Your task to perform on an android device: Is it going to rain today? Image 0: 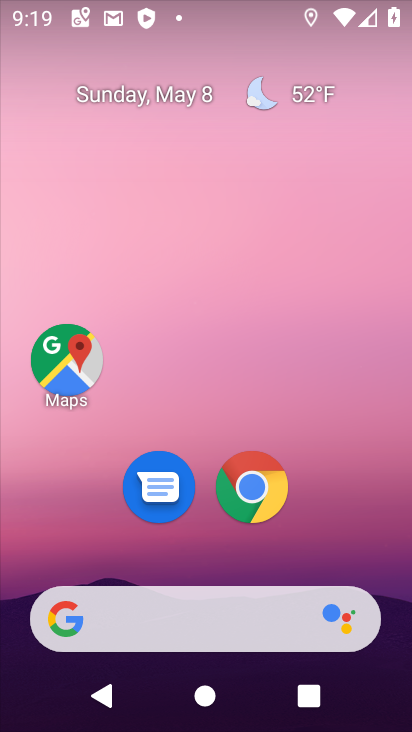
Step 0: click (245, 610)
Your task to perform on an android device: Is it going to rain today? Image 1: 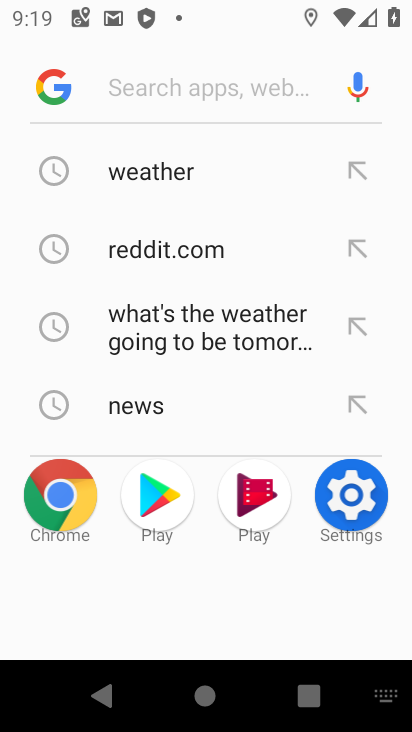
Step 1: type "is it going to rain today"
Your task to perform on an android device: Is it going to rain today? Image 2: 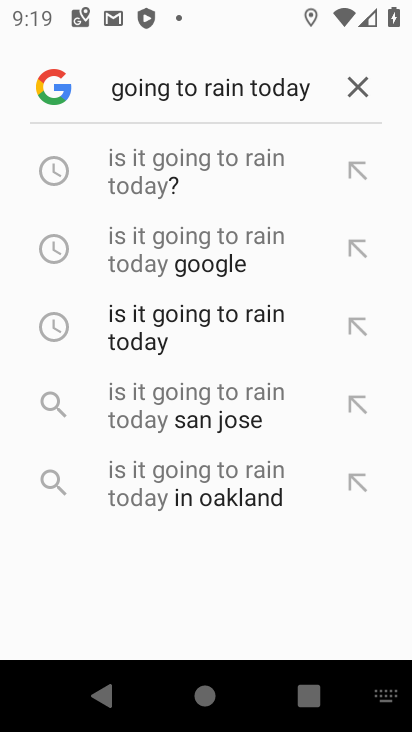
Step 2: click (168, 169)
Your task to perform on an android device: Is it going to rain today? Image 3: 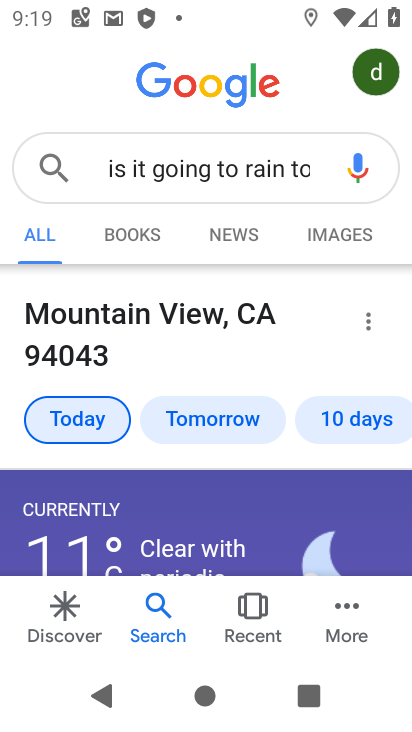
Step 3: task complete